Your task to perform on an android device: Open internet settings Image 0: 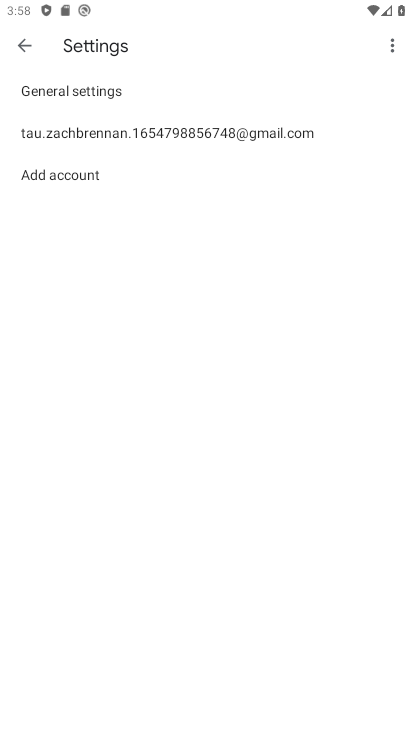
Step 0: press home button
Your task to perform on an android device: Open internet settings Image 1: 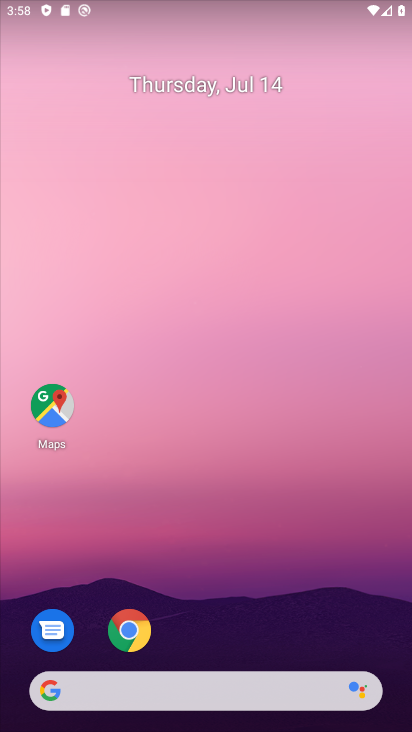
Step 1: drag from (217, 600) to (242, 7)
Your task to perform on an android device: Open internet settings Image 2: 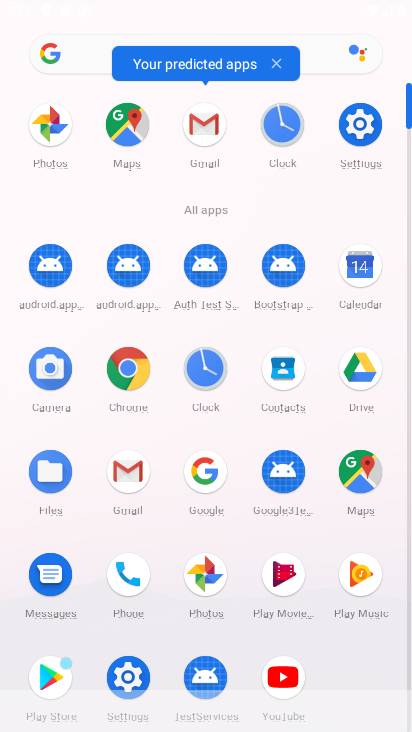
Step 2: click (360, 117)
Your task to perform on an android device: Open internet settings Image 3: 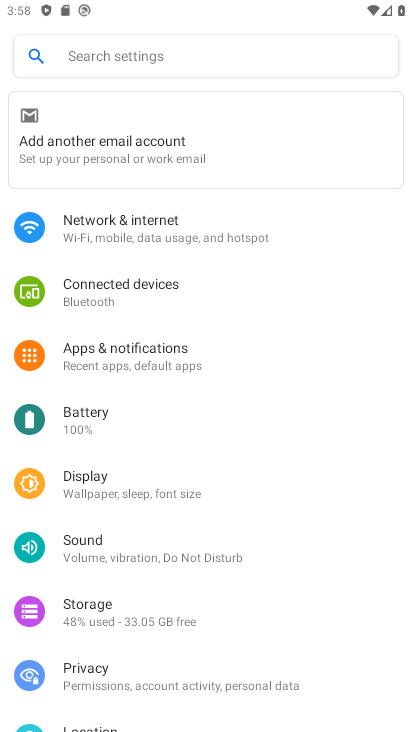
Step 3: click (150, 225)
Your task to perform on an android device: Open internet settings Image 4: 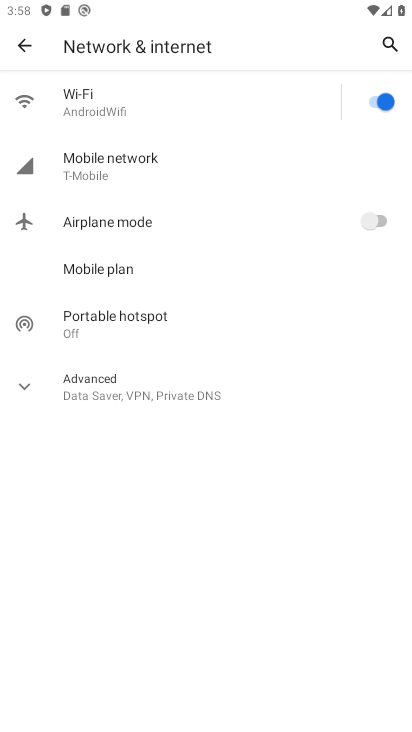
Step 4: click (56, 383)
Your task to perform on an android device: Open internet settings Image 5: 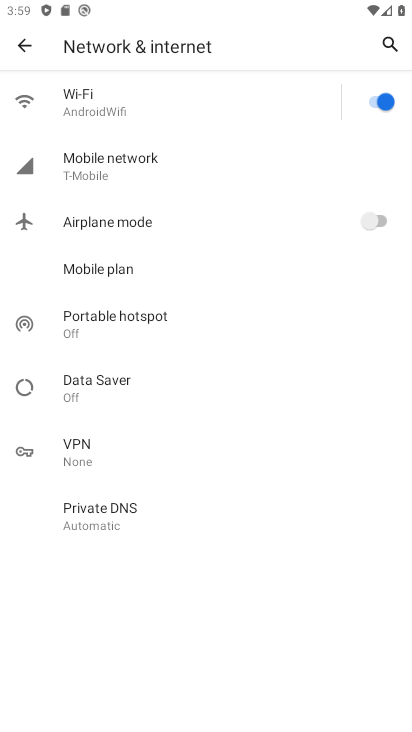
Step 5: task complete